Your task to perform on an android device: Open Google Maps and go to "Timeline" Image 0: 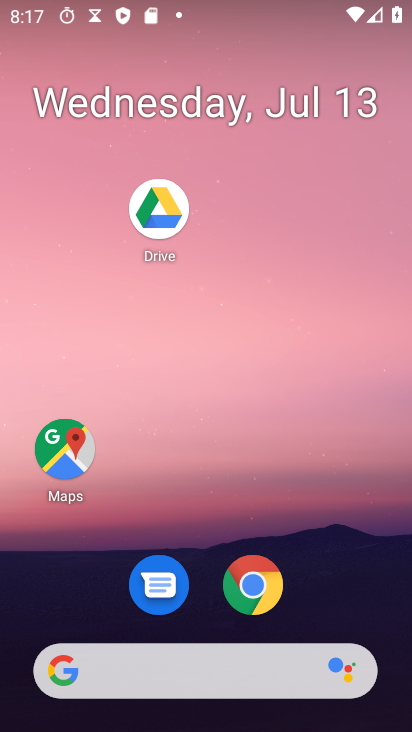
Step 0: click (59, 449)
Your task to perform on an android device: Open Google Maps and go to "Timeline" Image 1: 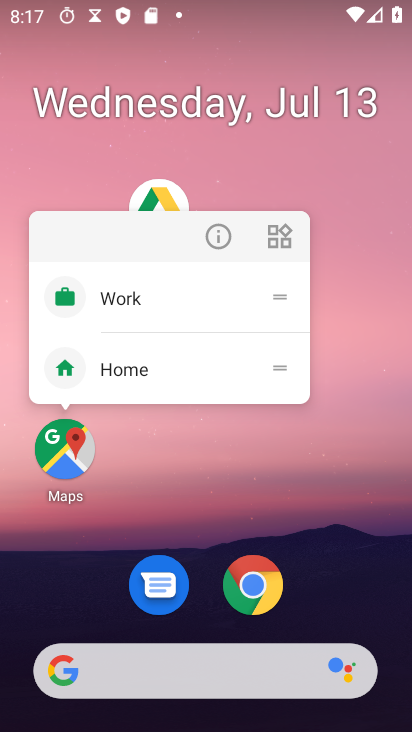
Step 1: click (59, 450)
Your task to perform on an android device: Open Google Maps and go to "Timeline" Image 2: 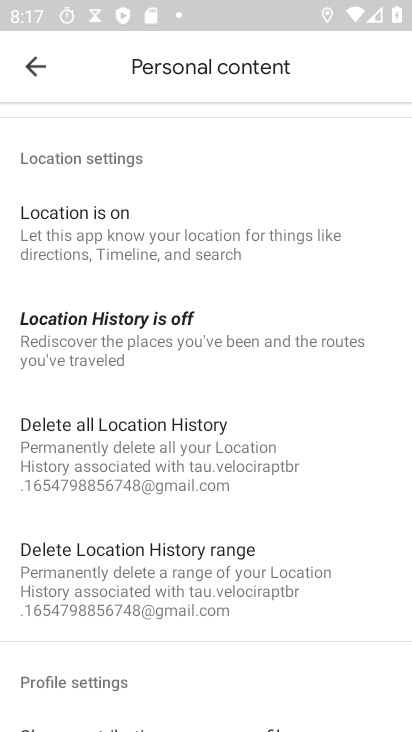
Step 2: click (34, 57)
Your task to perform on an android device: Open Google Maps and go to "Timeline" Image 3: 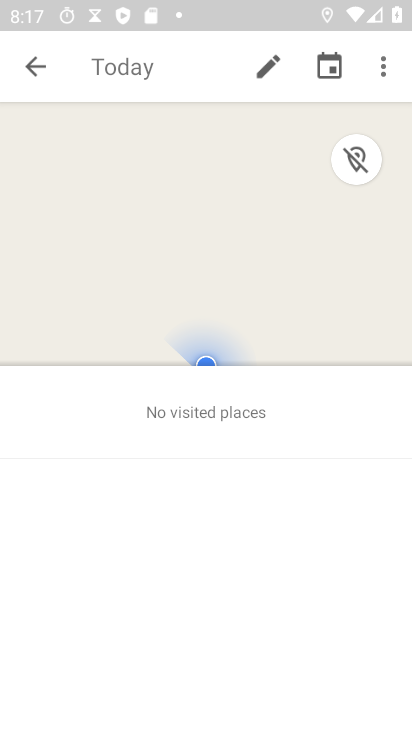
Step 3: click (43, 60)
Your task to perform on an android device: Open Google Maps and go to "Timeline" Image 4: 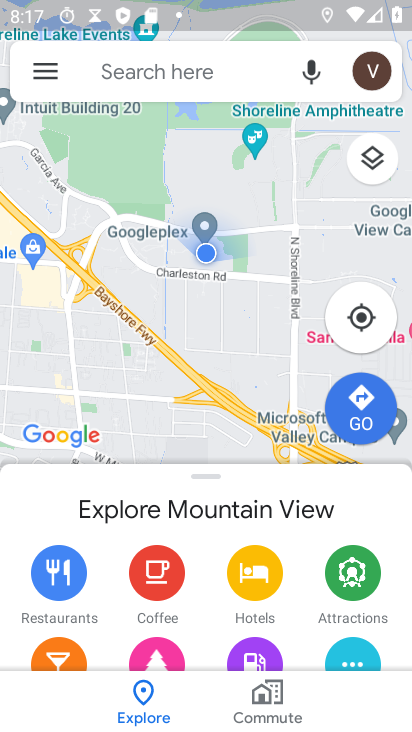
Step 4: click (41, 63)
Your task to perform on an android device: Open Google Maps and go to "Timeline" Image 5: 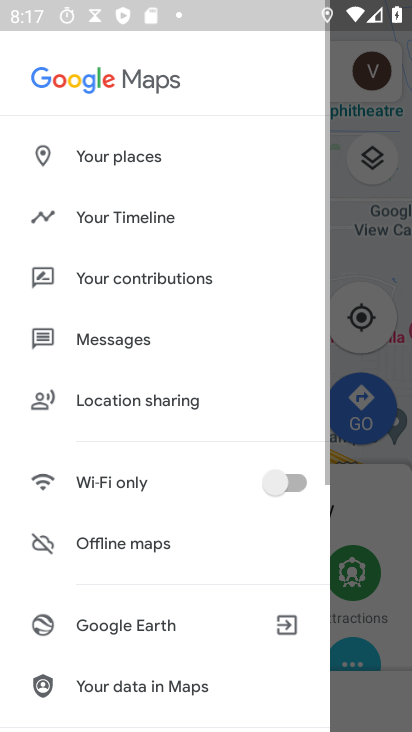
Step 5: click (131, 215)
Your task to perform on an android device: Open Google Maps and go to "Timeline" Image 6: 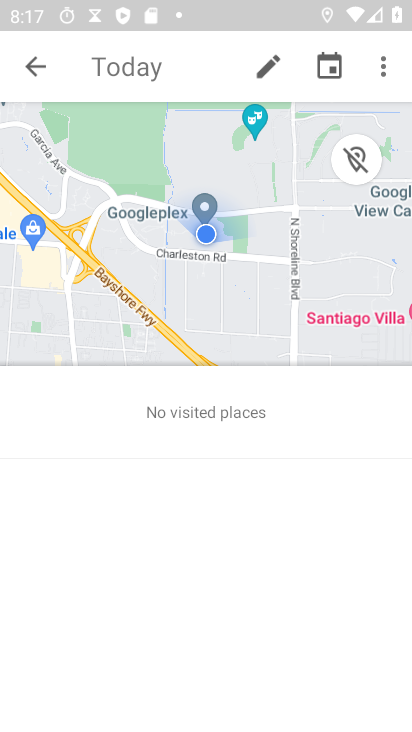
Step 6: task complete